Your task to perform on an android device: Toggle the flashlight Image 0: 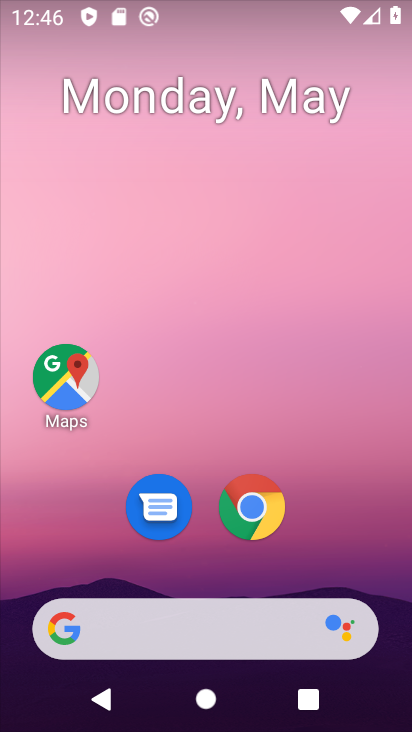
Step 0: drag from (240, 719) to (248, 102)
Your task to perform on an android device: Toggle the flashlight Image 1: 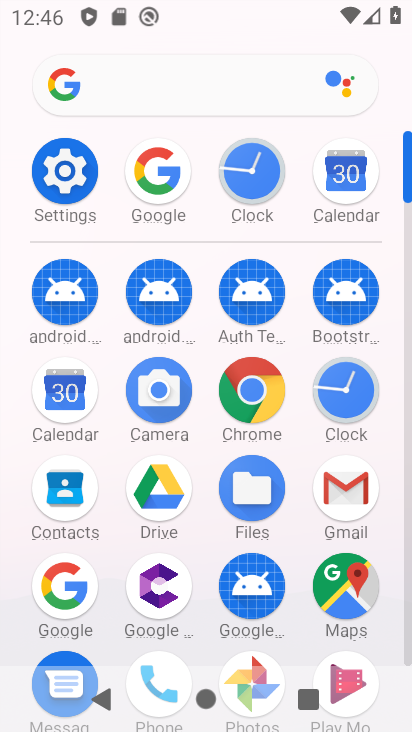
Step 1: click (66, 167)
Your task to perform on an android device: Toggle the flashlight Image 2: 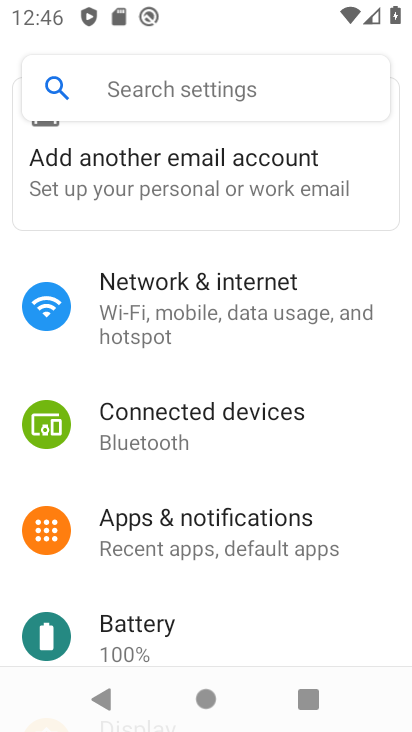
Step 2: task complete